Your task to perform on an android device: open app "Pandora - Music & Podcasts" Image 0: 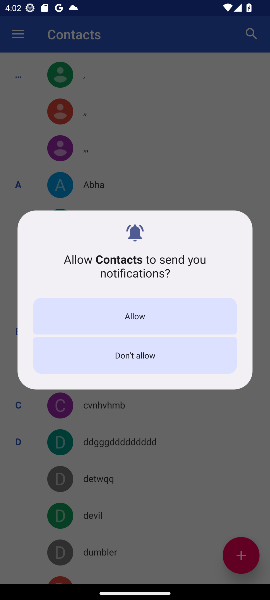
Step 0: press home button
Your task to perform on an android device: open app "Pandora - Music & Podcasts" Image 1: 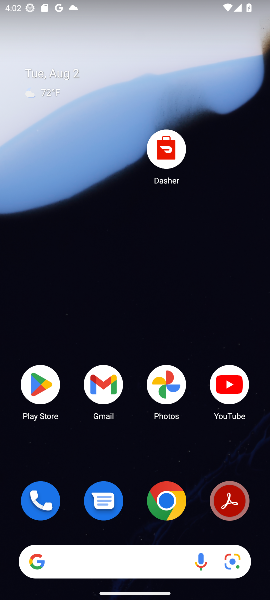
Step 1: click (32, 385)
Your task to perform on an android device: open app "Pandora - Music & Podcasts" Image 2: 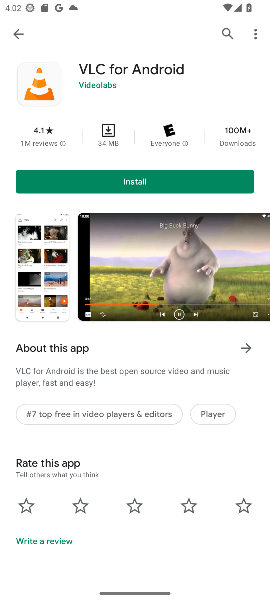
Step 2: click (218, 32)
Your task to perform on an android device: open app "Pandora - Music & Podcasts" Image 3: 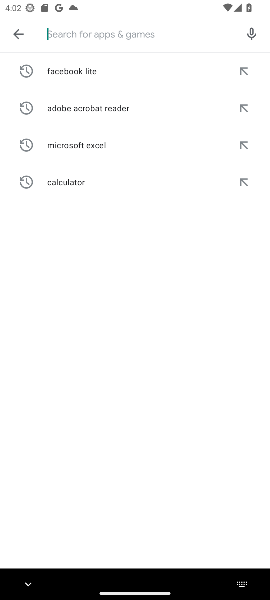
Step 3: type "Pandora - Music & Podcasts"
Your task to perform on an android device: open app "Pandora - Music & Podcasts" Image 4: 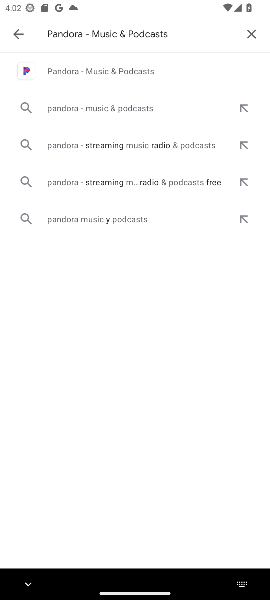
Step 4: click (103, 72)
Your task to perform on an android device: open app "Pandora - Music & Podcasts" Image 5: 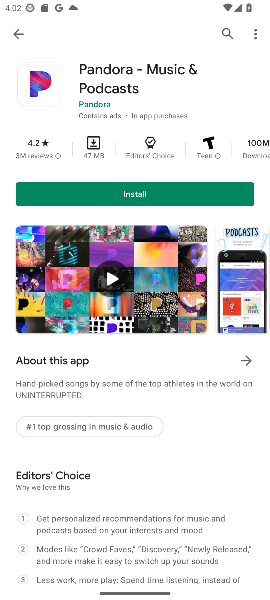
Step 5: task complete